Your task to perform on an android device: all mails in gmail Image 0: 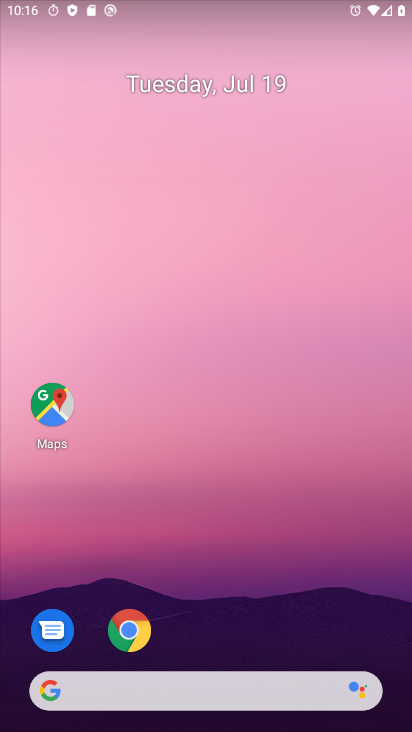
Step 0: press home button
Your task to perform on an android device: all mails in gmail Image 1: 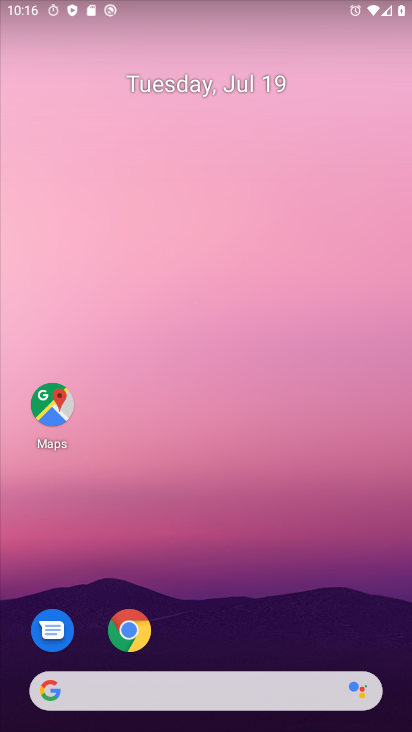
Step 1: drag from (251, 643) to (172, 161)
Your task to perform on an android device: all mails in gmail Image 2: 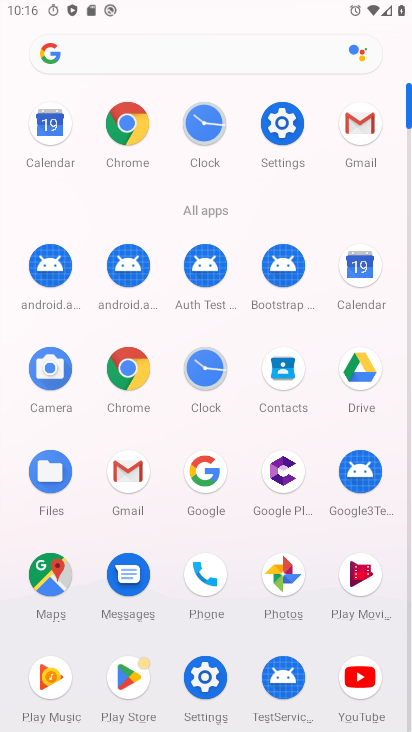
Step 2: click (361, 139)
Your task to perform on an android device: all mails in gmail Image 3: 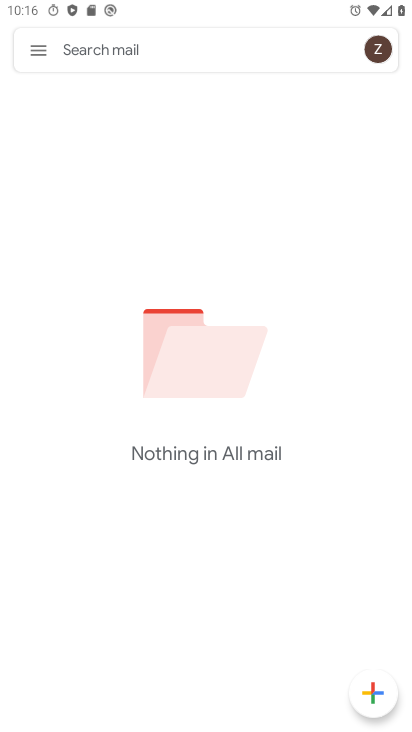
Step 3: click (33, 49)
Your task to perform on an android device: all mails in gmail Image 4: 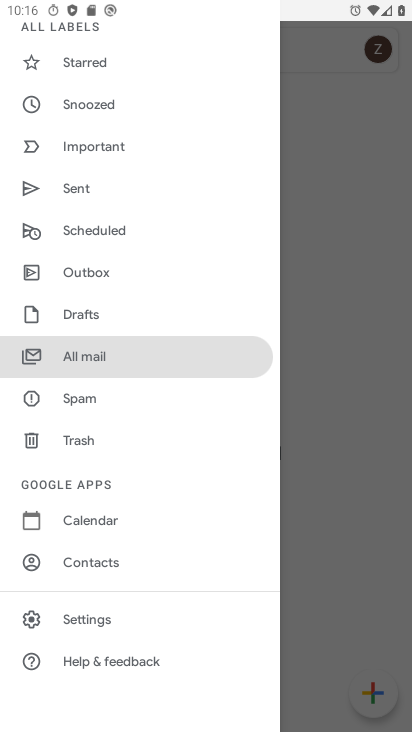
Step 4: click (95, 364)
Your task to perform on an android device: all mails in gmail Image 5: 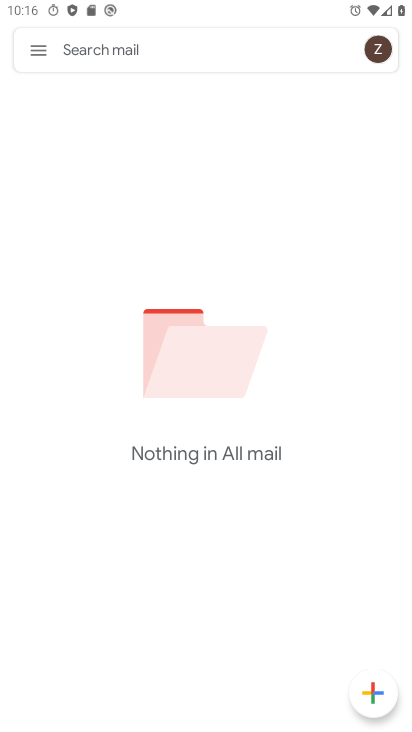
Step 5: task complete